Your task to perform on an android device: uninstall "YouTube Kids" Image 0: 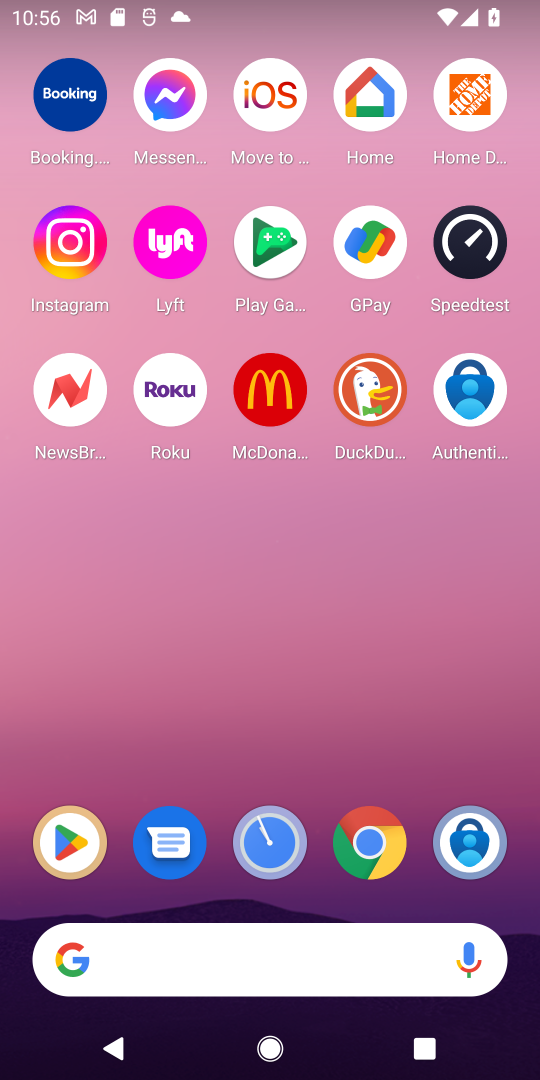
Step 0: click (66, 850)
Your task to perform on an android device: uninstall "YouTube Kids" Image 1: 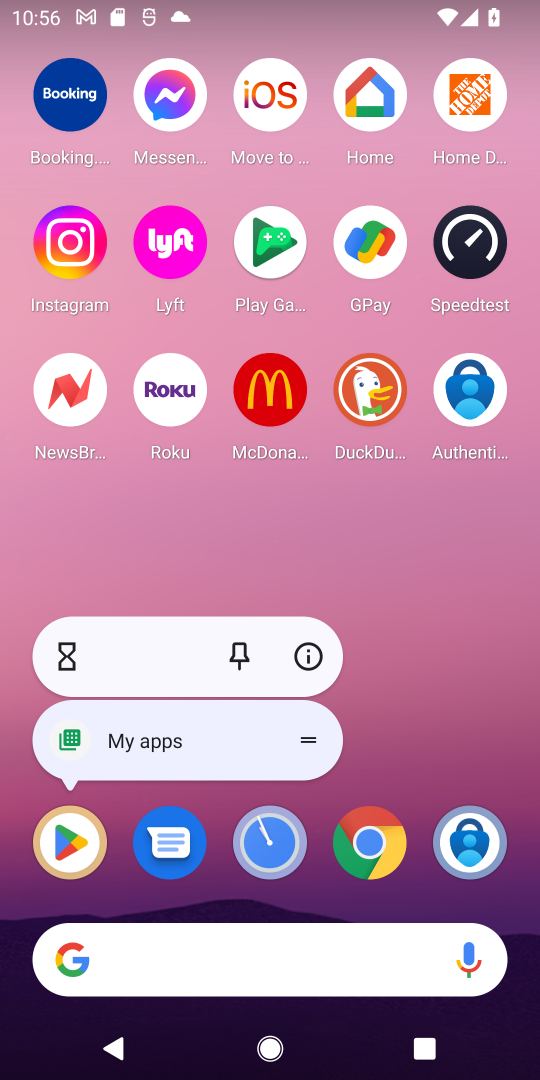
Step 1: click (68, 849)
Your task to perform on an android device: uninstall "YouTube Kids" Image 2: 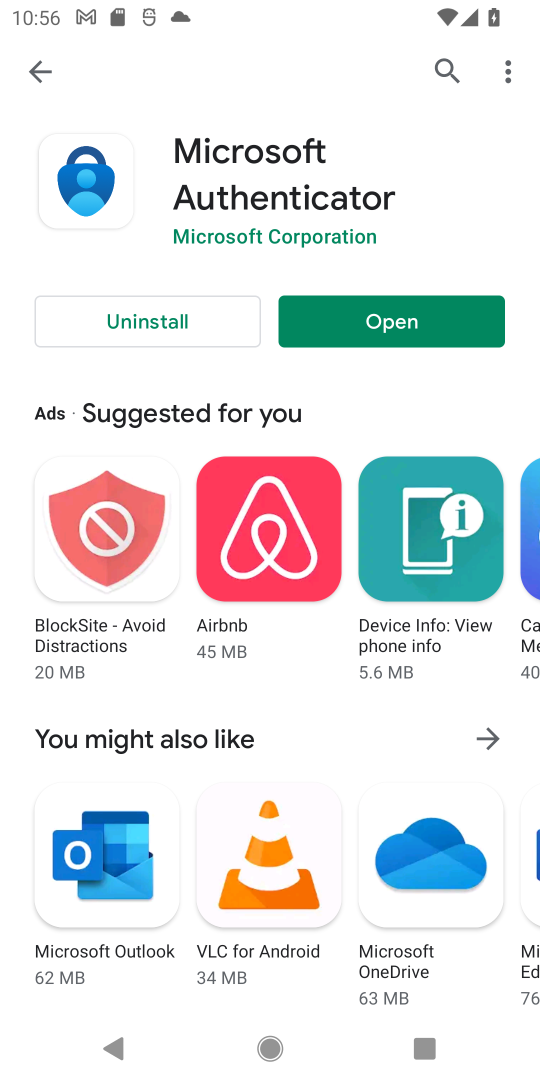
Step 2: click (438, 91)
Your task to perform on an android device: uninstall "YouTube Kids" Image 3: 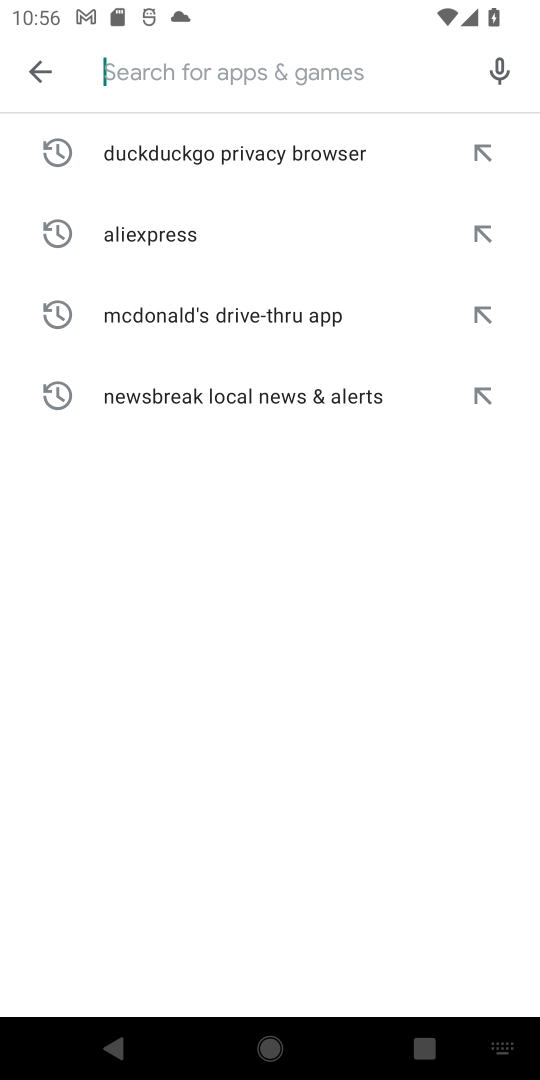
Step 3: click (230, 82)
Your task to perform on an android device: uninstall "YouTube Kids" Image 4: 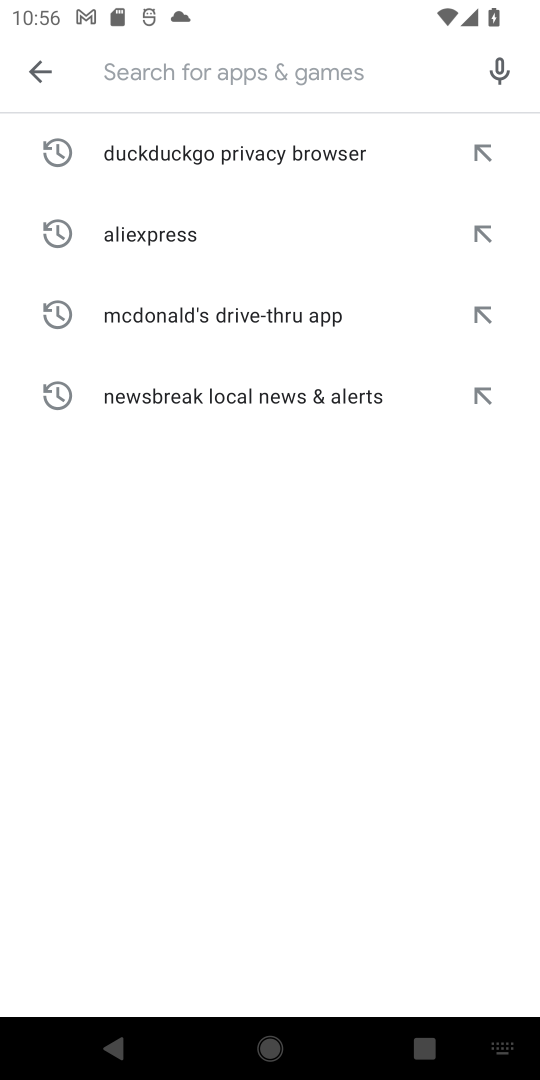
Step 4: type "YouTube Kids"
Your task to perform on an android device: uninstall "YouTube Kids" Image 5: 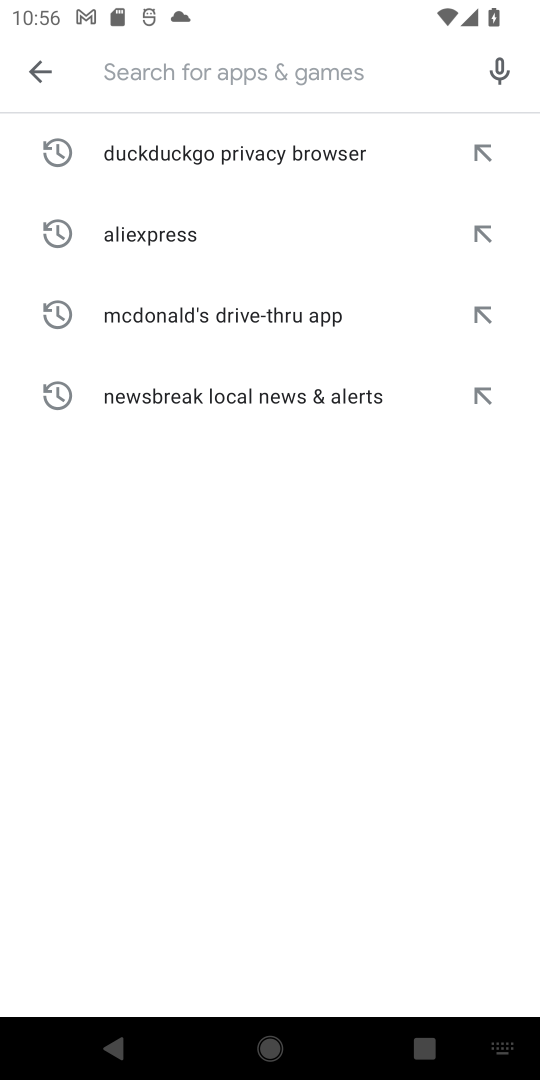
Step 5: click (300, 679)
Your task to perform on an android device: uninstall "YouTube Kids" Image 6: 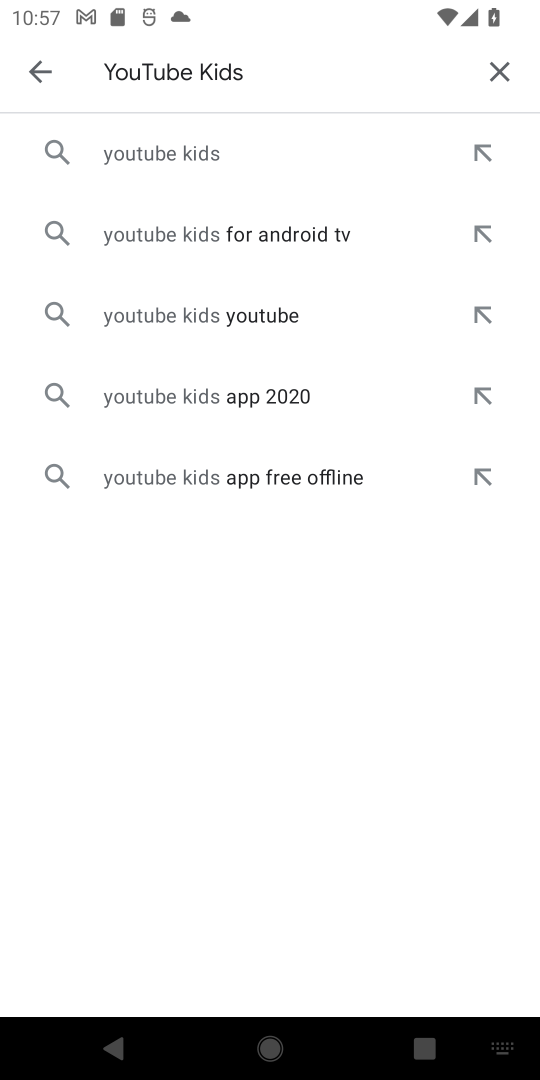
Step 6: click (192, 147)
Your task to perform on an android device: uninstall "YouTube Kids" Image 7: 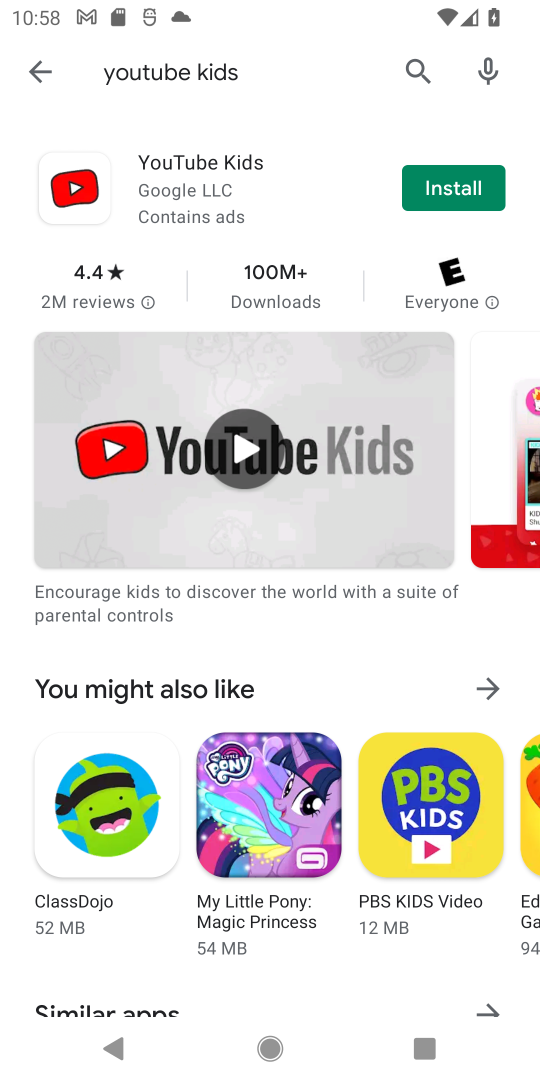
Step 7: task complete